Your task to perform on an android device: Open Chrome and go to the settings page Image 0: 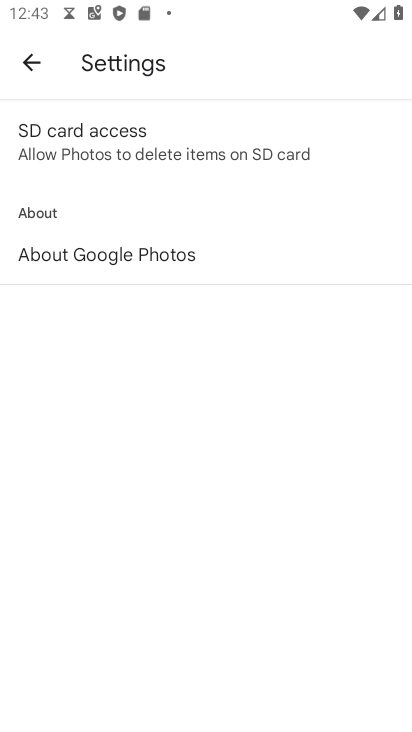
Step 0: press home button
Your task to perform on an android device: Open Chrome and go to the settings page Image 1: 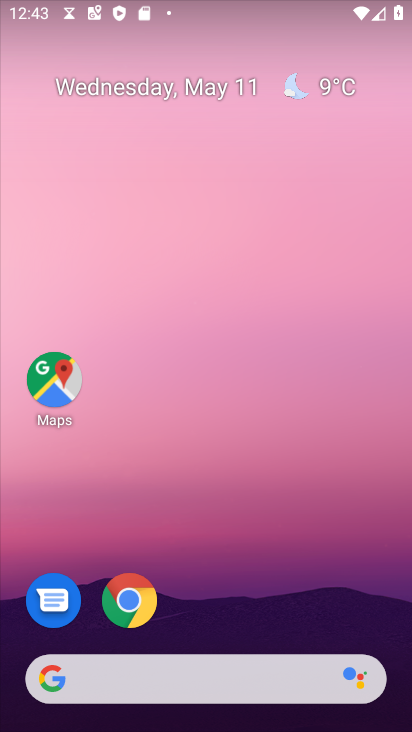
Step 1: click (132, 608)
Your task to perform on an android device: Open Chrome and go to the settings page Image 2: 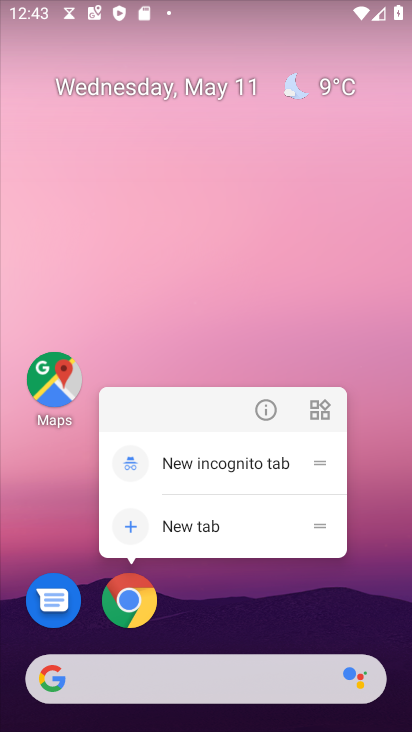
Step 2: click (149, 608)
Your task to perform on an android device: Open Chrome and go to the settings page Image 3: 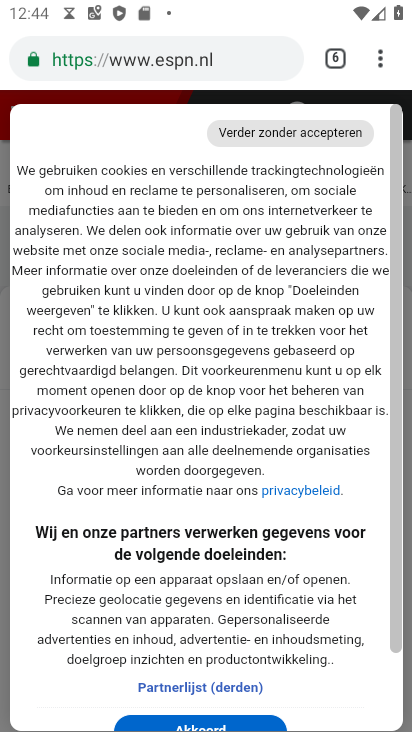
Step 3: click (374, 55)
Your task to perform on an android device: Open Chrome and go to the settings page Image 4: 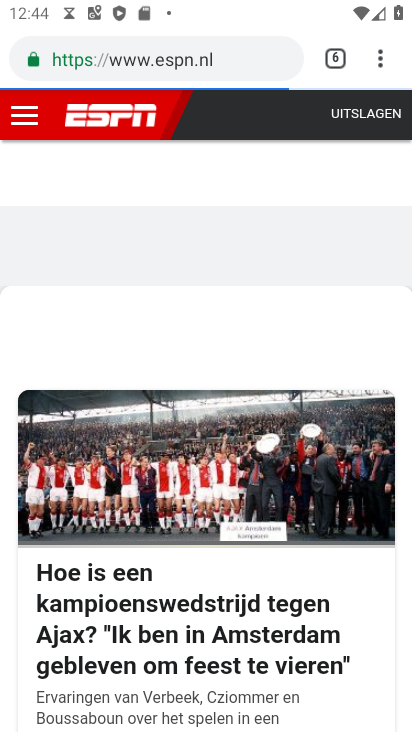
Step 4: click (375, 57)
Your task to perform on an android device: Open Chrome and go to the settings page Image 5: 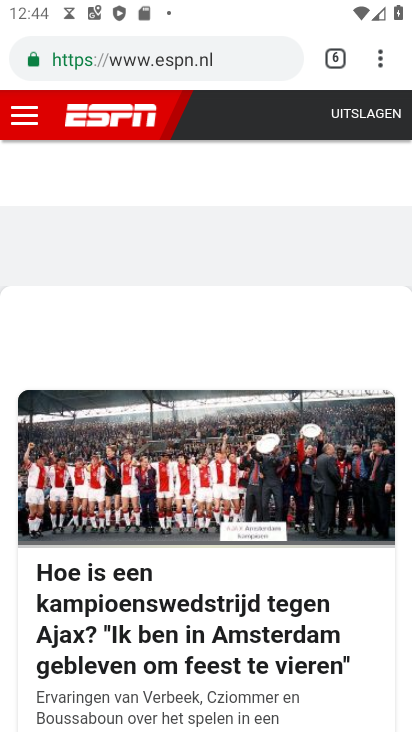
Step 5: click (375, 61)
Your task to perform on an android device: Open Chrome and go to the settings page Image 6: 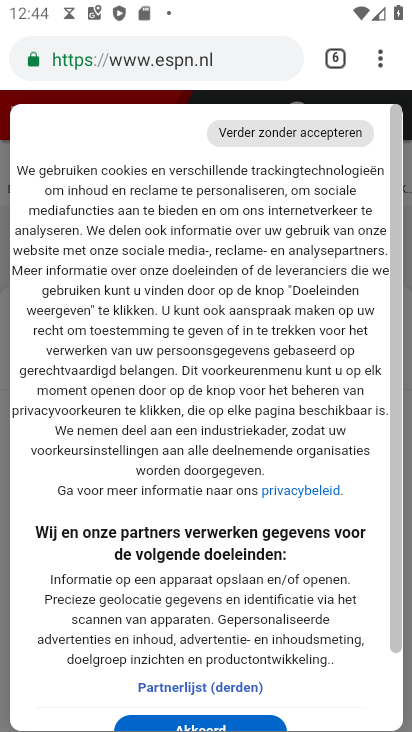
Step 6: click (381, 50)
Your task to perform on an android device: Open Chrome and go to the settings page Image 7: 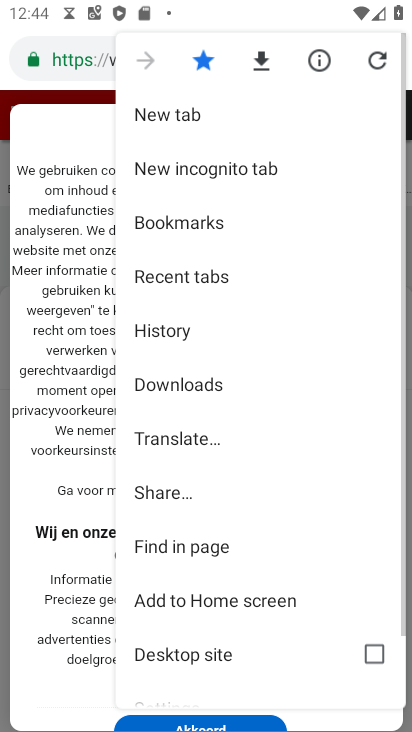
Step 7: drag from (265, 564) to (259, 179)
Your task to perform on an android device: Open Chrome and go to the settings page Image 8: 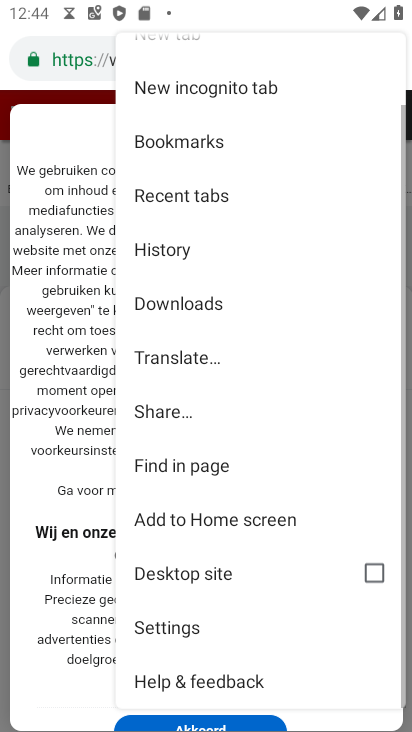
Step 8: click (211, 604)
Your task to perform on an android device: Open Chrome and go to the settings page Image 9: 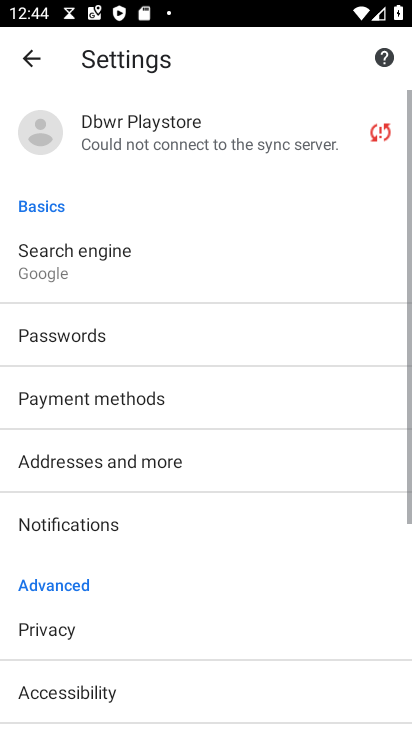
Step 9: task complete